Your task to perform on an android device: Open battery settings Image 0: 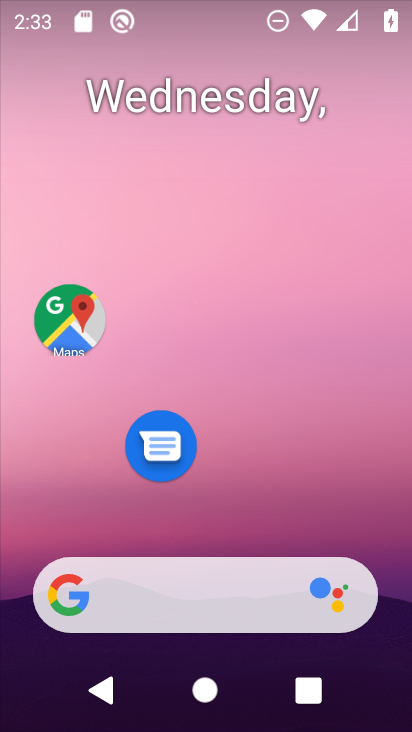
Step 0: drag from (372, 496) to (332, 71)
Your task to perform on an android device: Open battery settings Image 1: 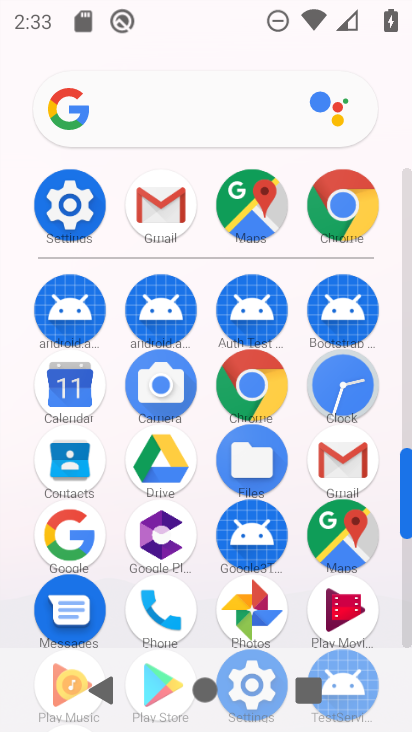
Step 1: click (58, 190)
Your task to perform on an android device: Open battery settings Image 2: 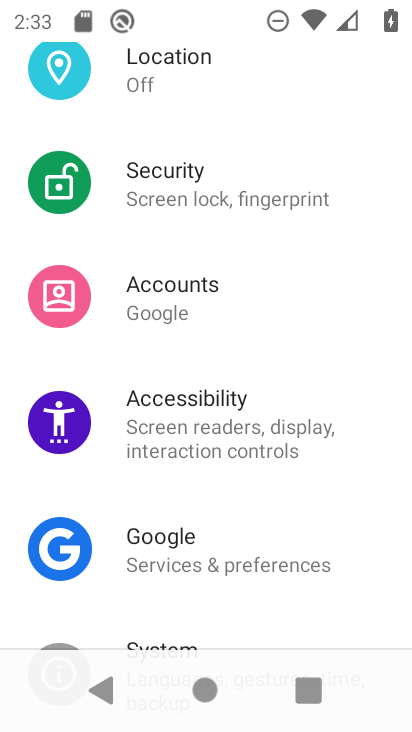
Step 2: drag from (155, 130) to (270, 549)
Your task to perform on an android device: Open battery settings Image 3: 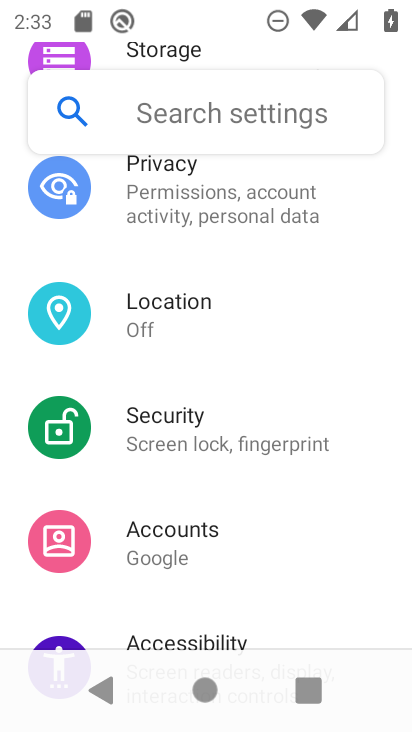
Step 3: drag from (203, 249) to (263, 549)
Your task to perform on an android device: Open battery settings Image 4: 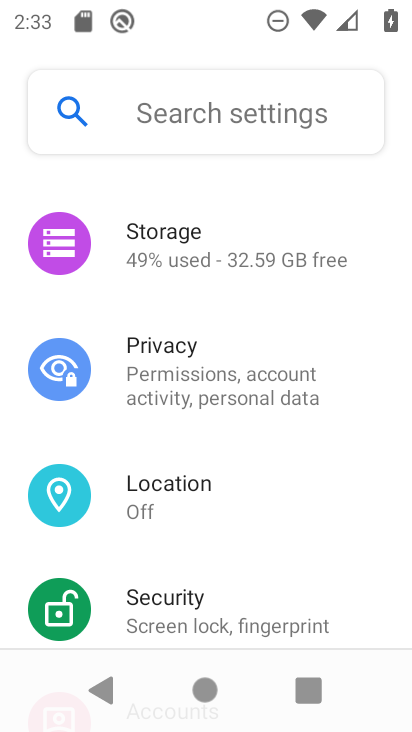
Step 4: drag from (245, 445) to (304, 713)
Your task to perform on an android device: Open battery settings Image 5: 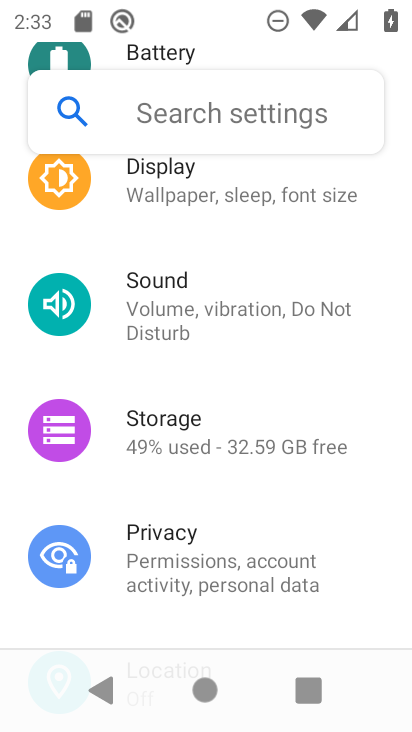
Step 5: drag from (222, 291) to (280, 511)
Your task to perform on an android device: Open battery settings Image 6: 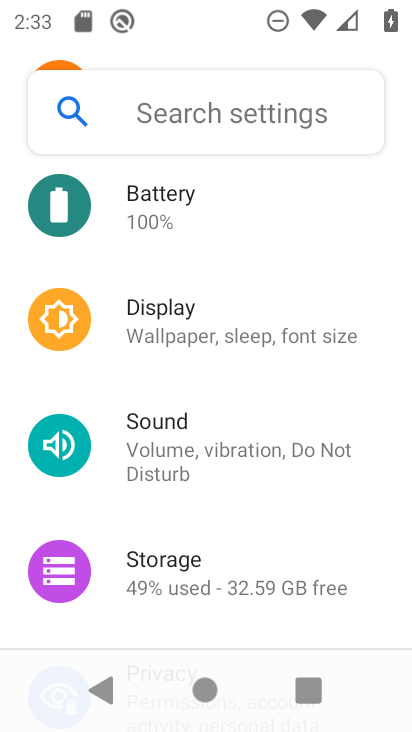
Step 6: click (228, 224)
Your task to perform on an android device: Open battery settings Image 7: 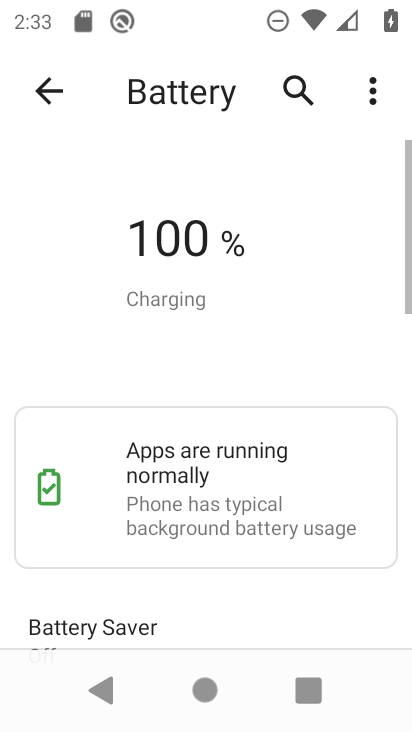
Step 7: task complete